Your task to perform on an android device: toggle priority inbox in the gmail app Image 0: 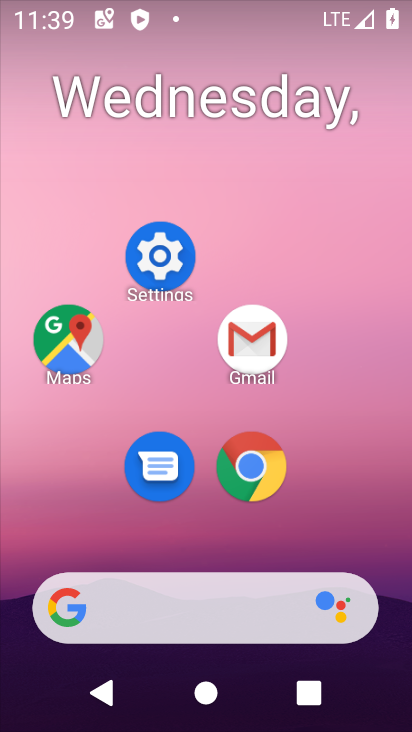
Step 0: drag from (197, 537) to (266, 125)
Your task to perform on an android device: toggle priority inbox in the gmail app Image 1: 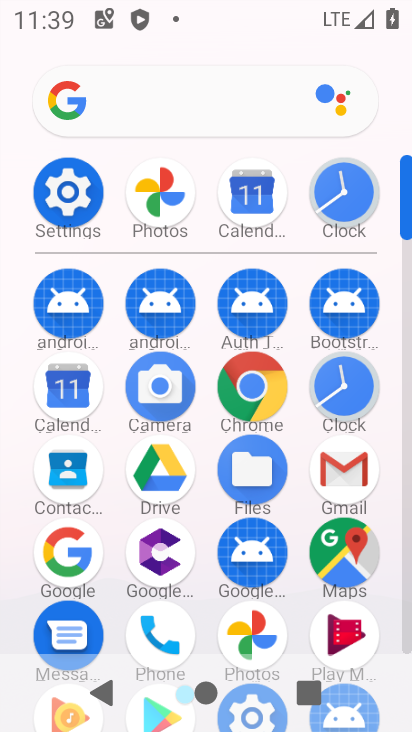
Step 1: click (332, 457)
Your task to perform on an android device: toggle priority inbox in the gmail app Image 2: 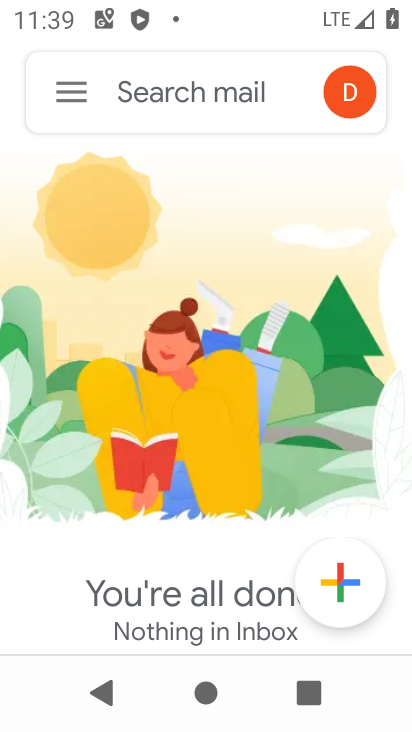
Step 2: click (60, 94)
Your task to perform on an android device: toggle priority inbox in the gmail app Image 3: 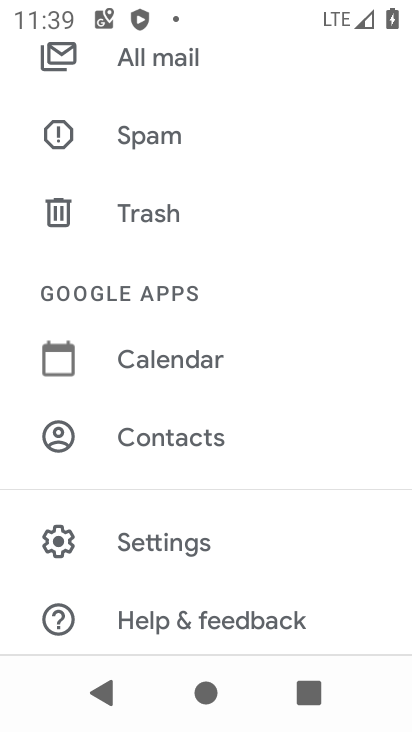
Step 3: click (164, 535)
Your task to perform on an android device: toggle priority inbox in the gmail app Image 4: 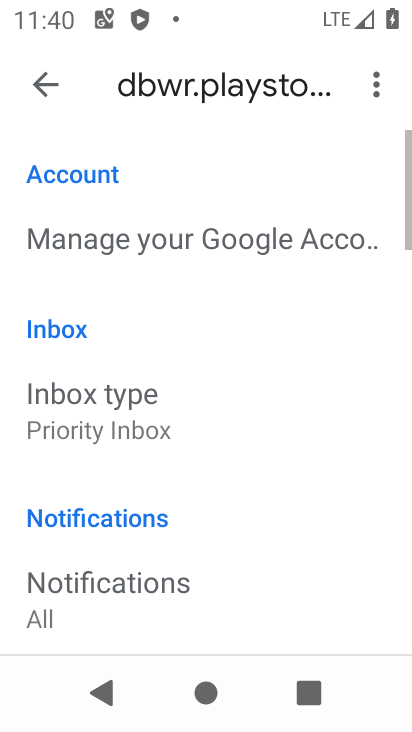
Step 4: drag from (136, 570) to (171, 310)
Your task to perform on an android device: toggle priority inbox in the gmail app Image 5: 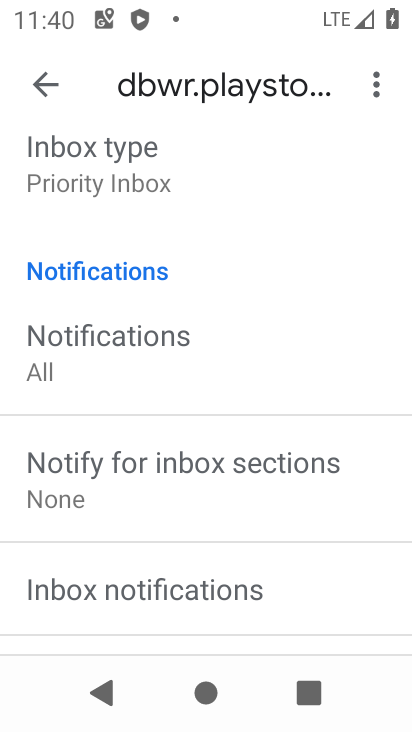
Step 5: click (151, 176)
Your task to perform on an android device: toggle priority inbox in the gmail app Image 6: 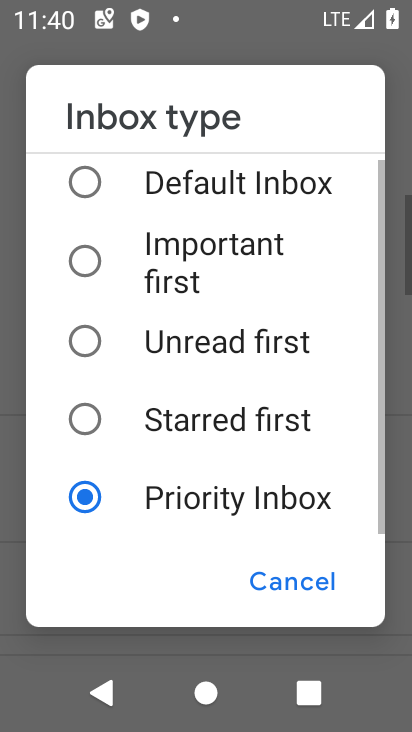
Step 6: click (141, 179)
Your task to perform on an android device: toggle priority inbox in the gmail app Image 7: 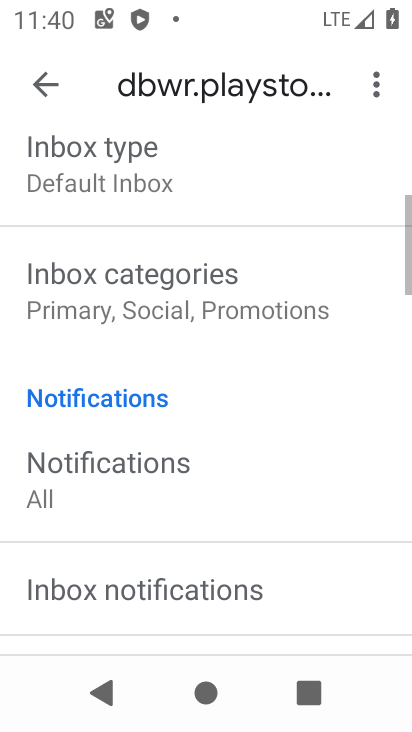
Step 7: task complete